Your task to perform on an android device: Search for flights from Sydney to Buenos aires Image 0: 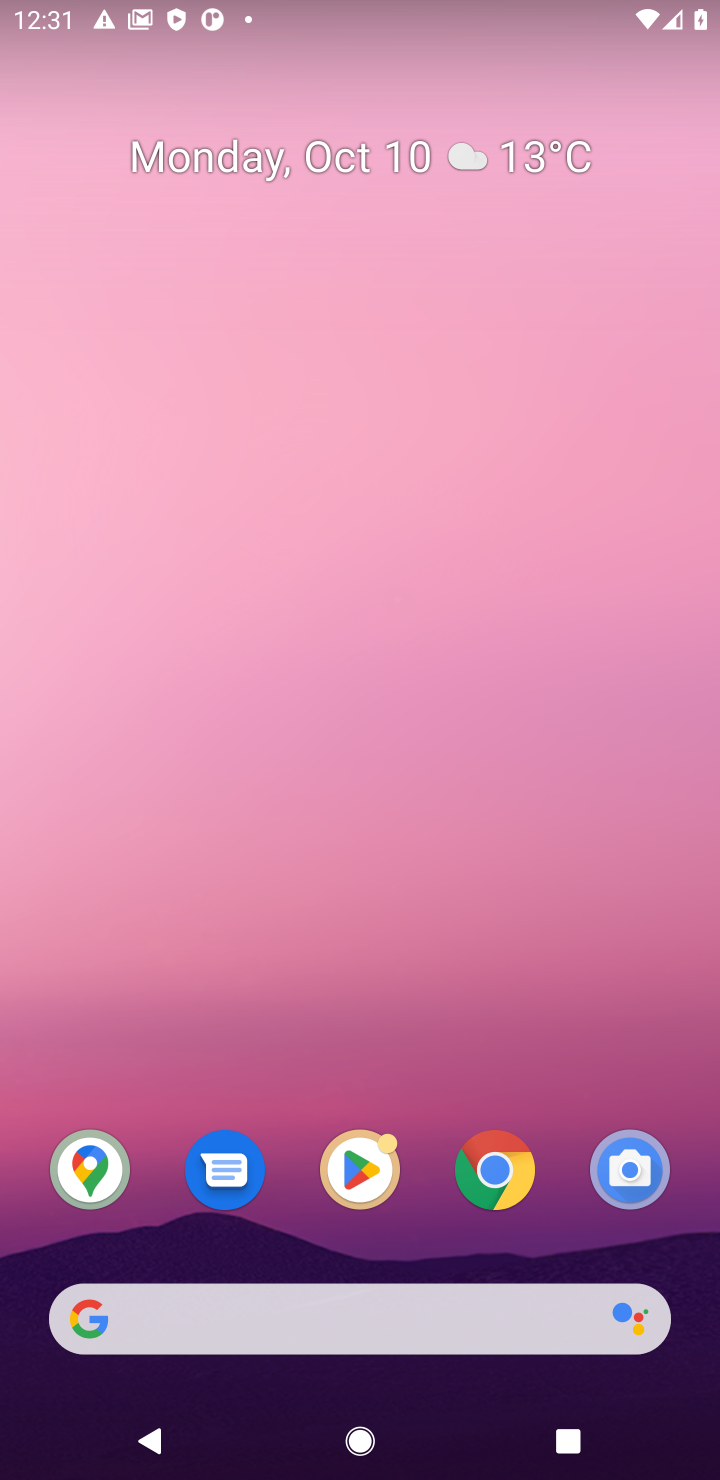
Step 0: click (499, 1169)
Your task to perform on an android device: Search for flights from Sydney to Buenos aires Image 1: 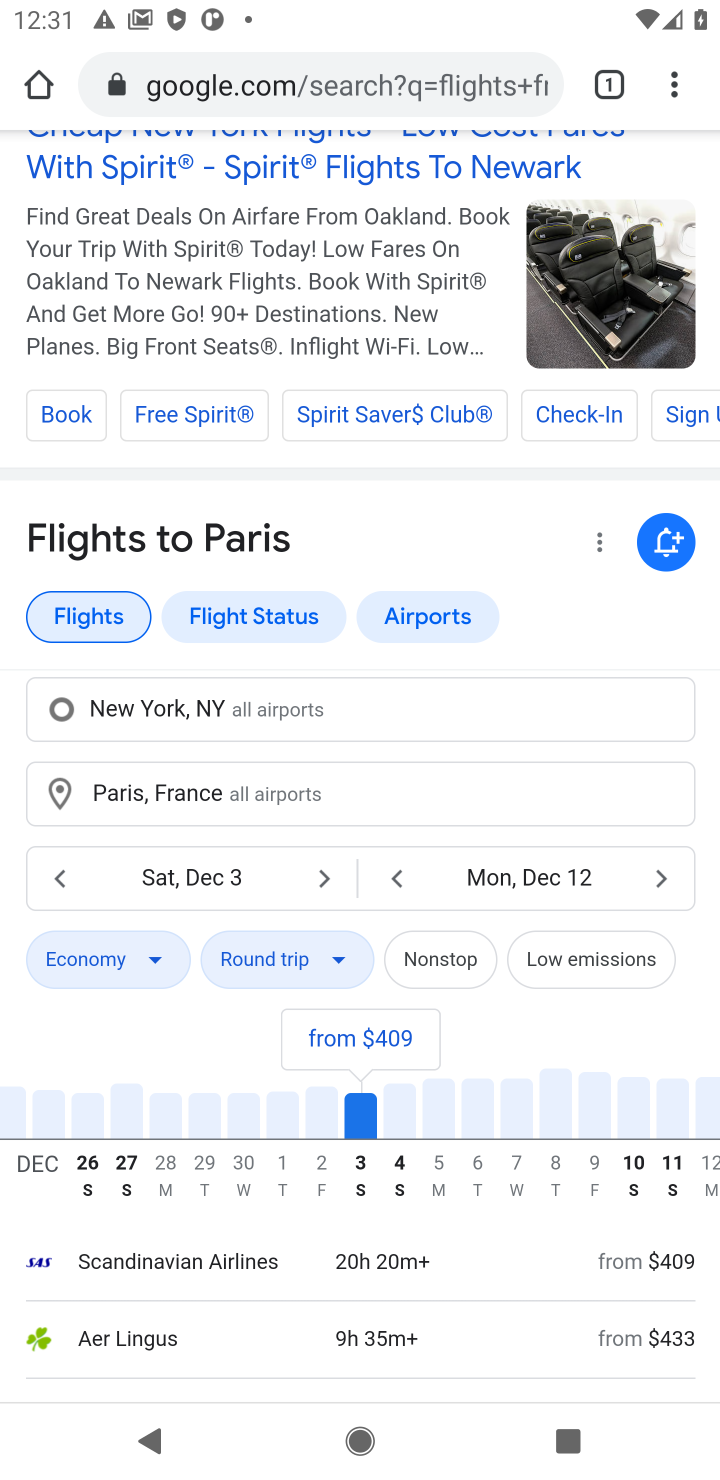
Step 1: click (351, 75)
Your task to perform on an android device: Search for flights from Sydney to Buenos aires Image 2: 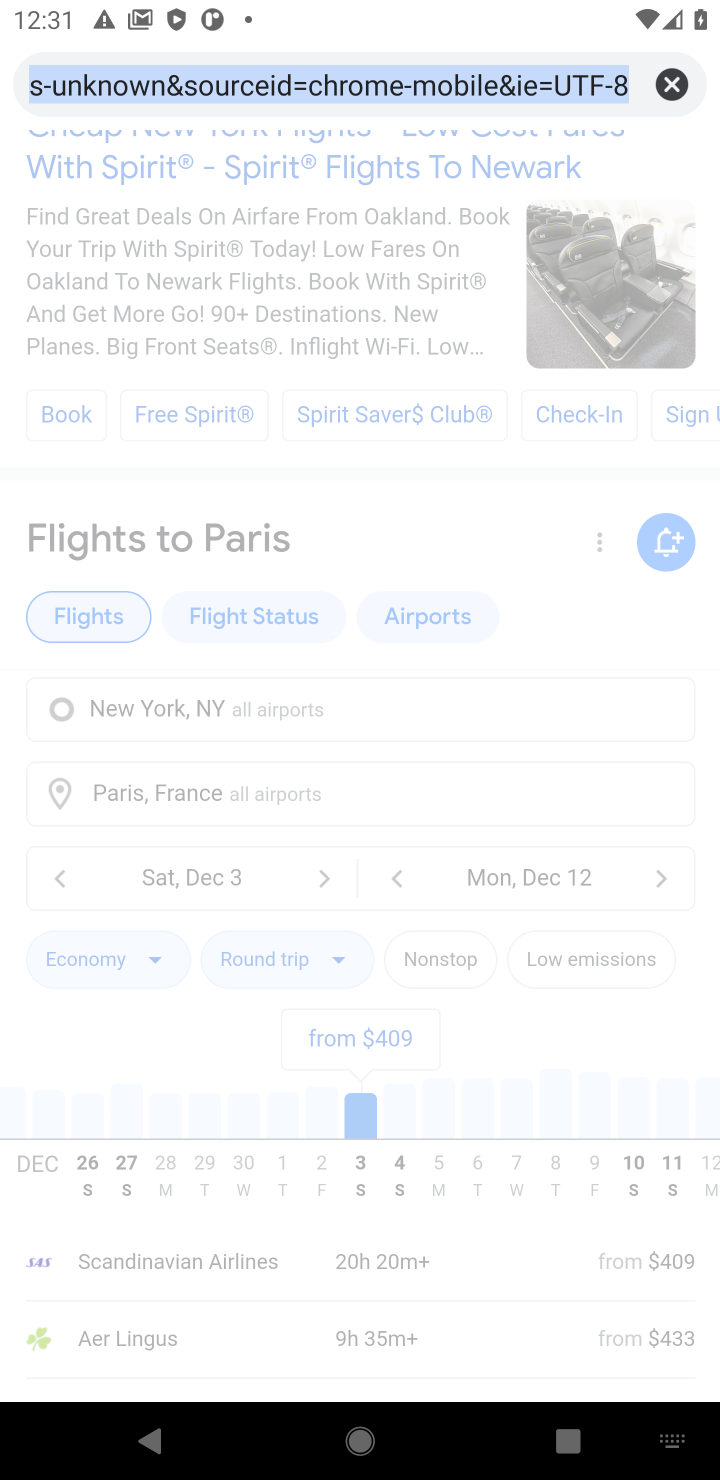
Step 2: click (663, 81)
Your task to perform on an android device: Search for flights from Sydney to Buenos aires Image 3: 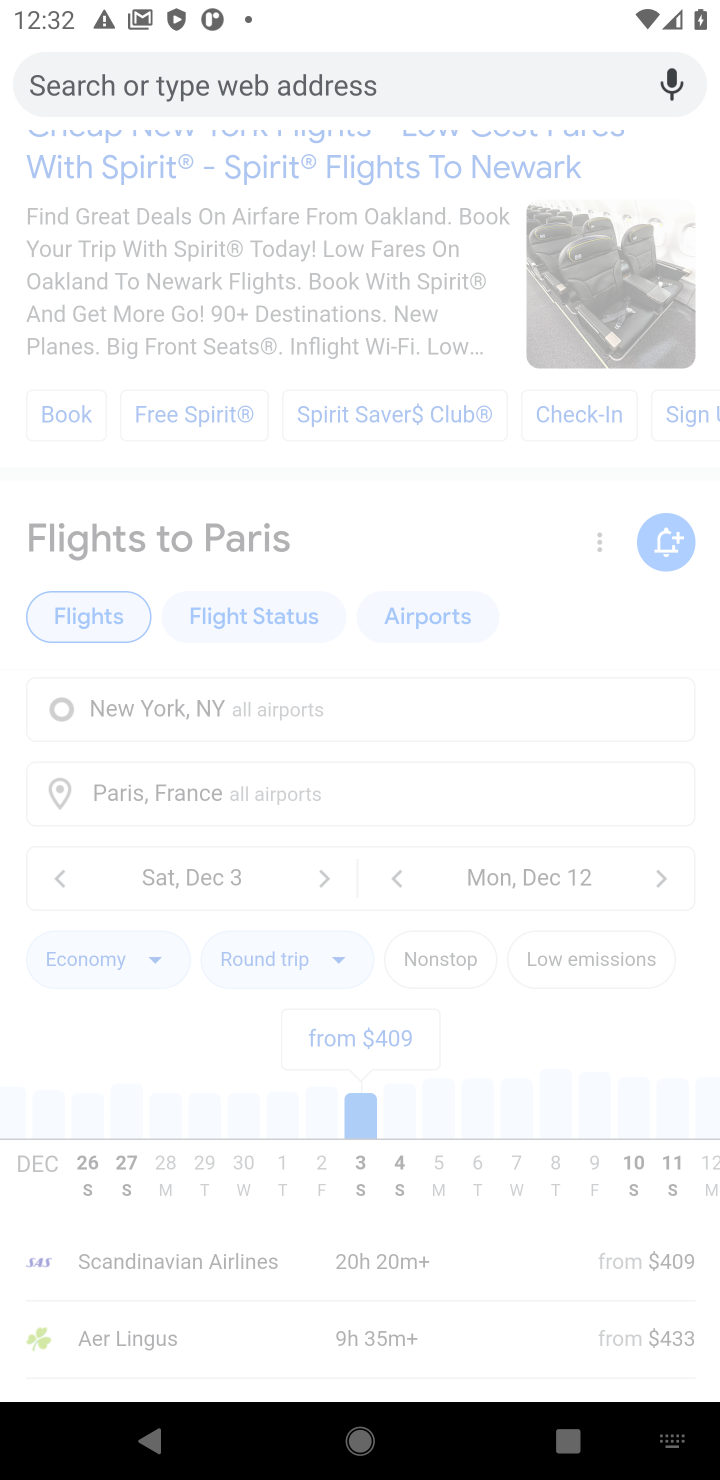
Step 3: type "flights from Sydney to Buenos aires"
Your task to perform on an android device: Search for flights from Sydney to Buenos aires Image 4: 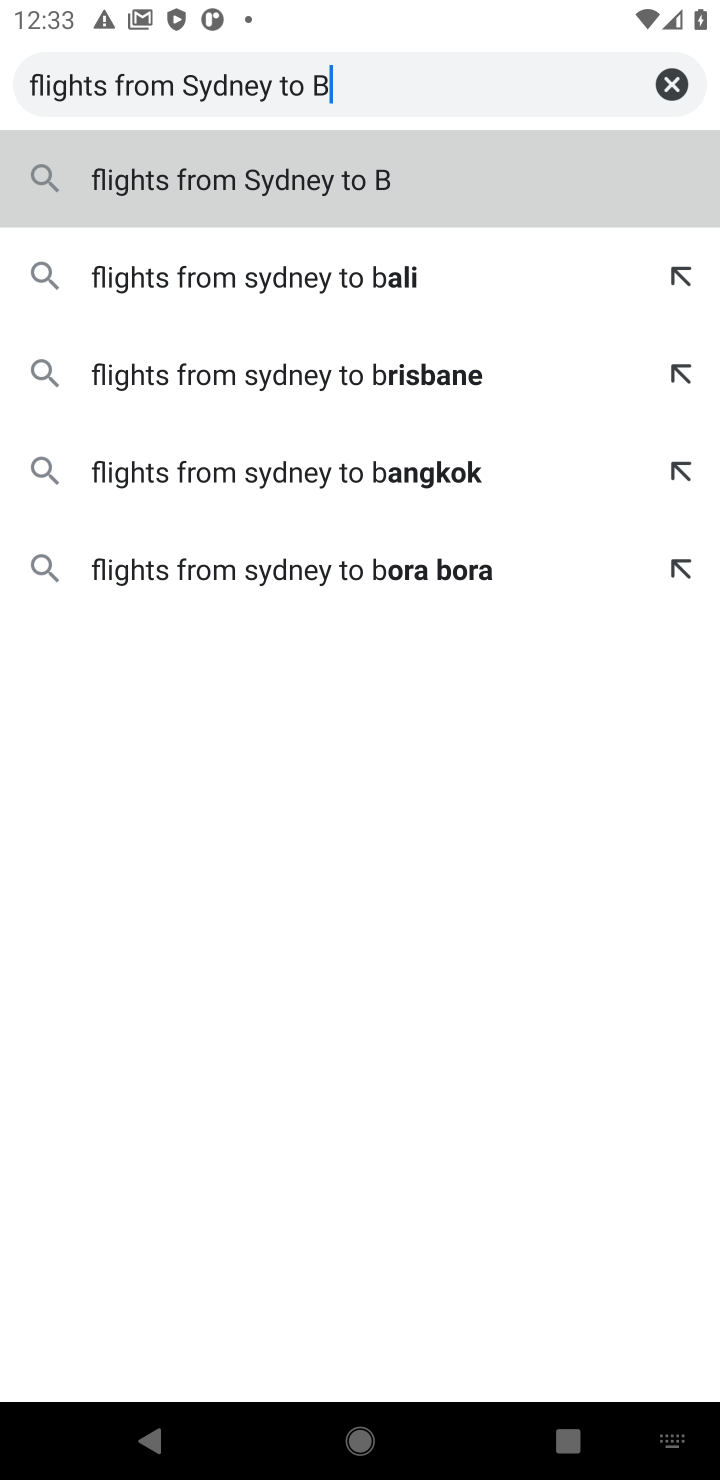
Step 4: type "uenos"
Your task to perform on an android device: Search for flights from Sydney to Buenos aires Image 5: 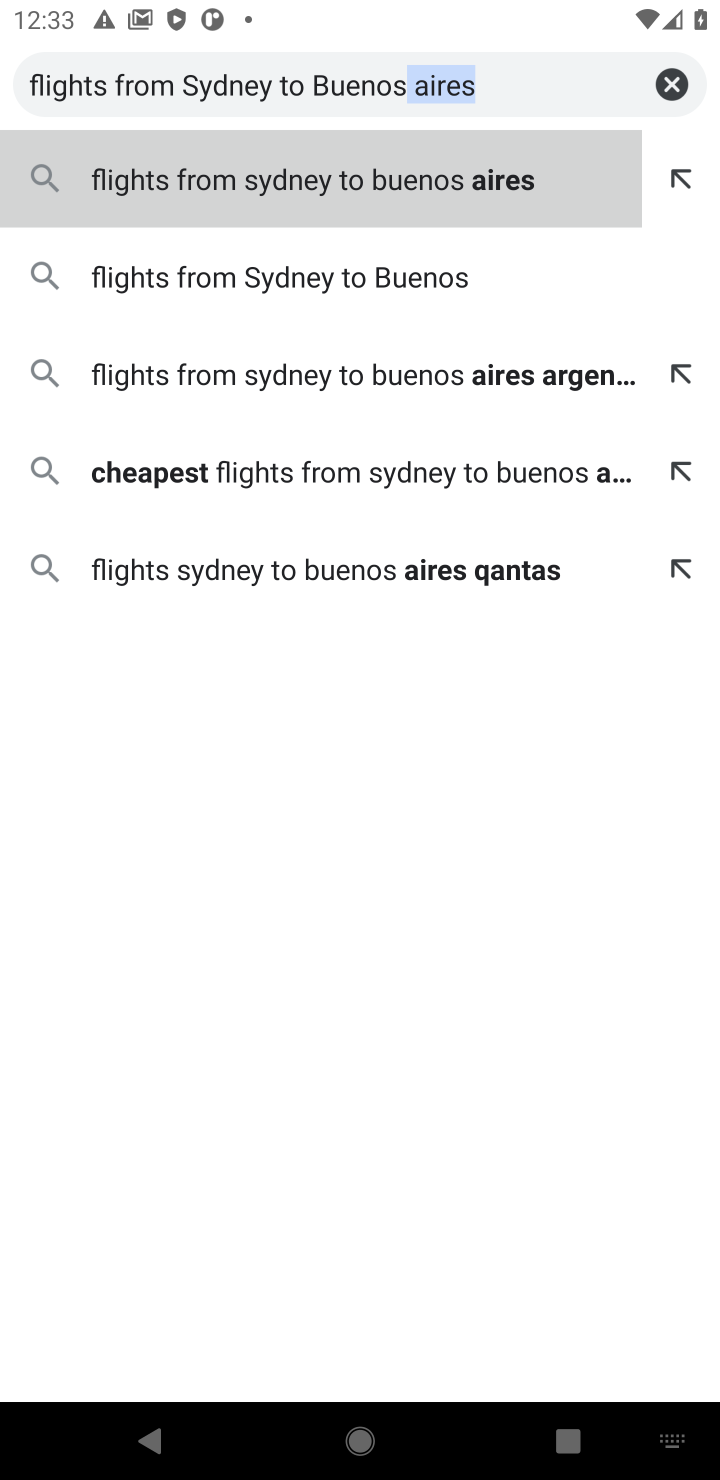
Step 5: click (470, 197)
Your task to perform on an android device: Search for flights from Sydney to Buenos aires Image 6: 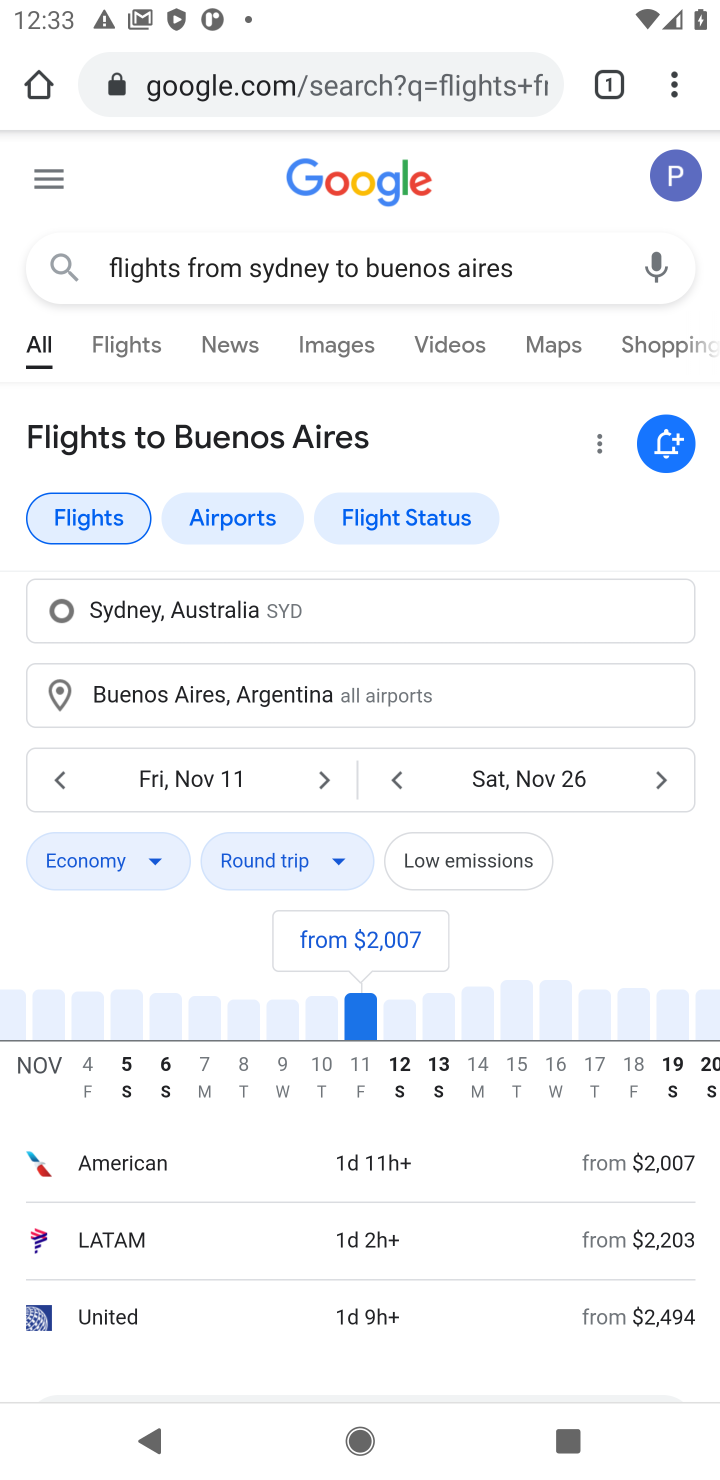
Step 6: task complete